Your task to perform on an android device: check google app version Image 0: 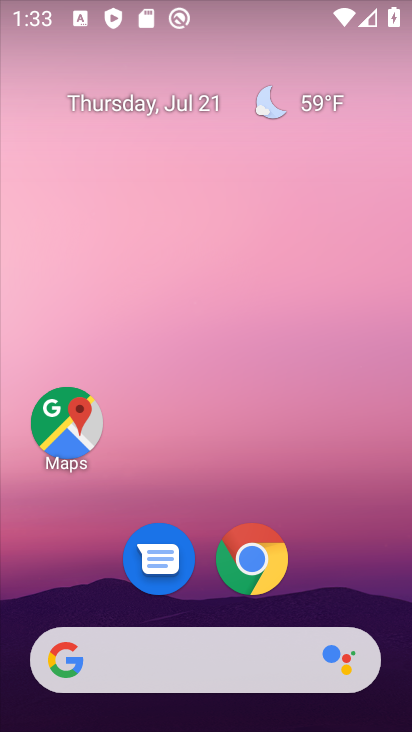
Step 0: drag from (283, 631) to (358, 173)
Your task to perform on an android device: check google app version Image 1: 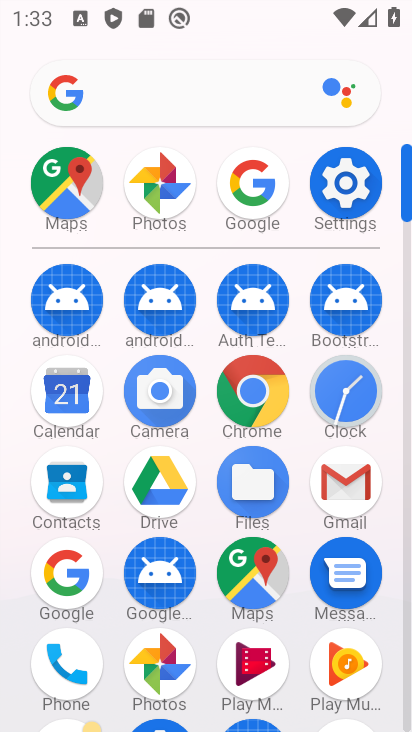
Step 1: drag from (221, 390) to (251, 134)
Your task to perform on an android device: check google app version Image 2: 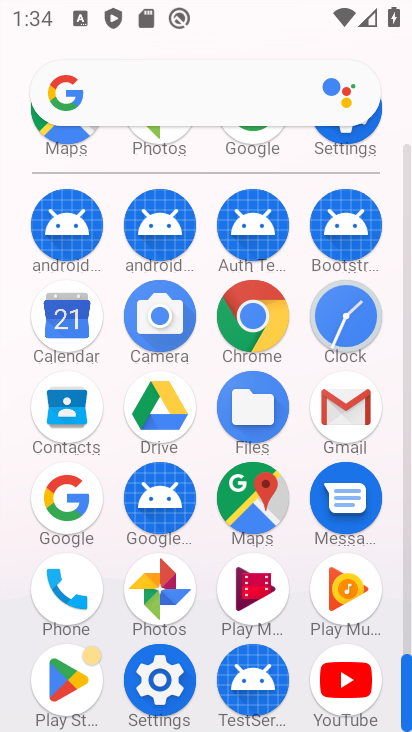
Step 2: click (74, 510)
Your task to perform on an android device: check google app version Image 3: 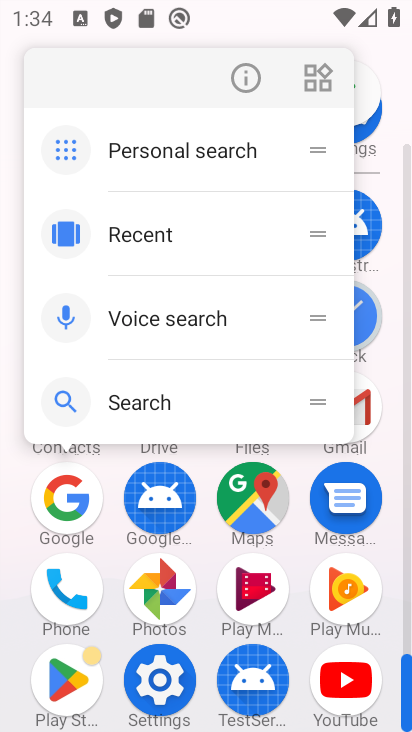
Step 3: click (90, 511)
Your task to perform on an android device: check google app version Image 4: 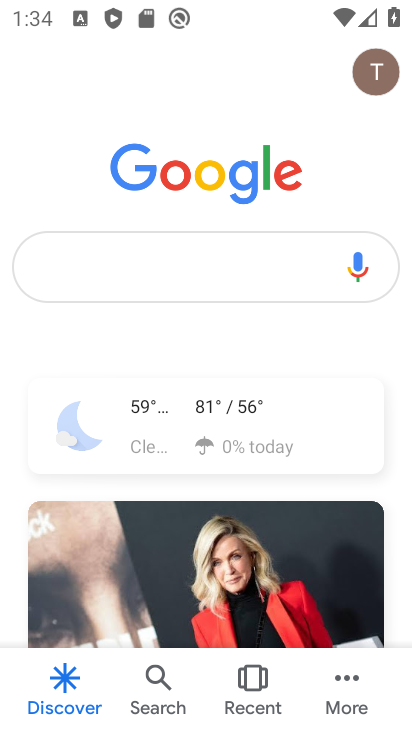
Step 4: click (373, 94)
Your task to perform on an android device: check google app version Image 5: 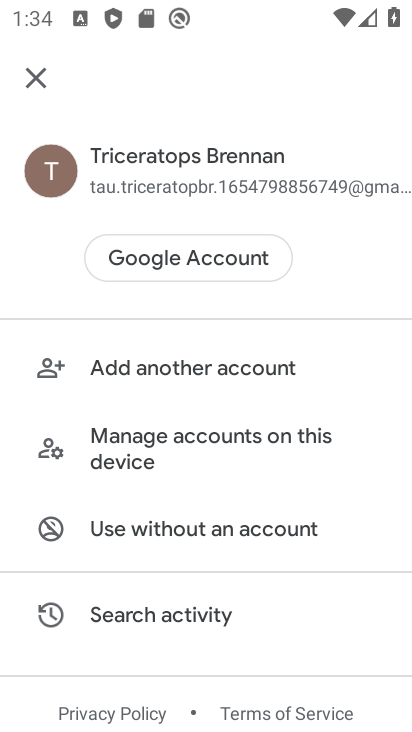
Step 5: task complete